Your task to perform on an android device: set default search engine in the chrome app Image 0: 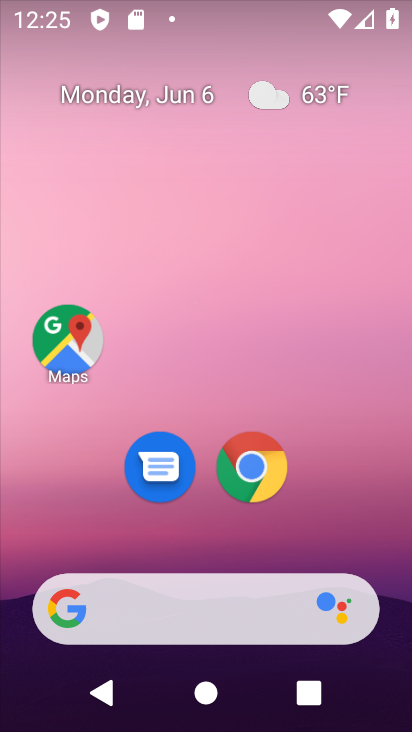
Step 0: drag from (396, 621) to (271, 91)
Your task to perform on an android device: set default search engine in the chrome app Image 1: 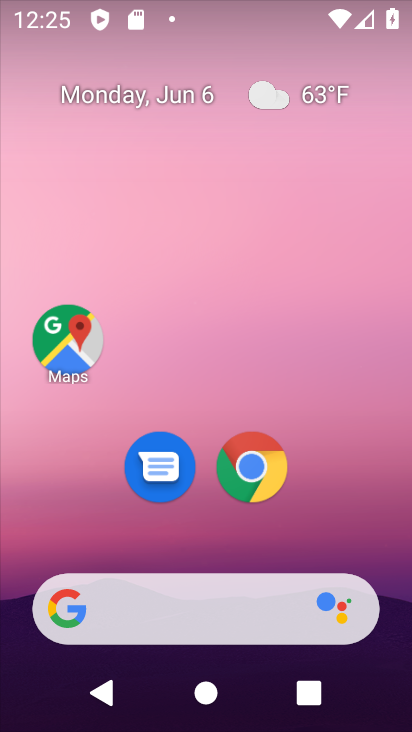
Step 1: click (267, 85)
Your task to perform on an android device: set default search engine in the chrome app Image 2: 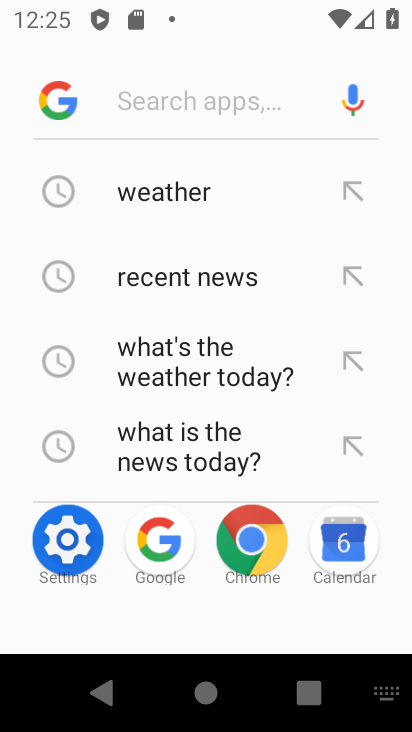
Step 2: click (267, 525)
Your task to perform on an android device: set default search engine in the chrome app Image 3: 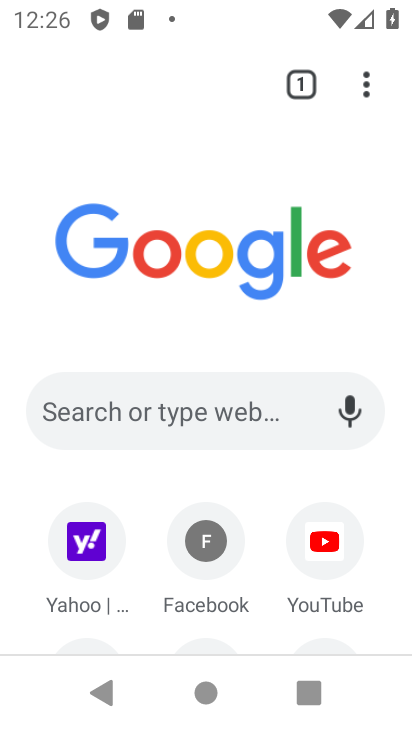
Step 3: click (369, 83)
Your task to perform on an android device: set default search engine in the chrome app Image 4: 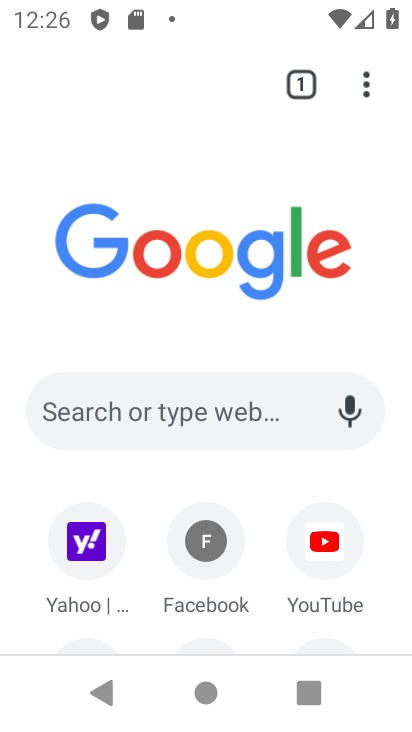
Step 4: click (366, 79)
Your task to perform on an android device: set default search engine in the chrome app Image 5: 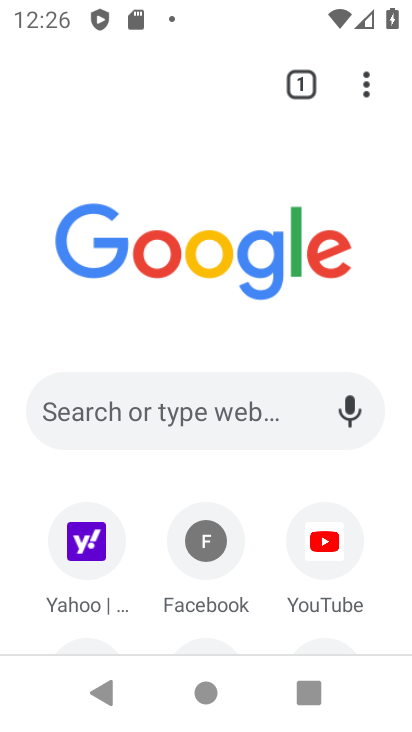
Step 5: click (366, 79)
Your task to perform on an android device: set default search engine in the chrome app Image 6: 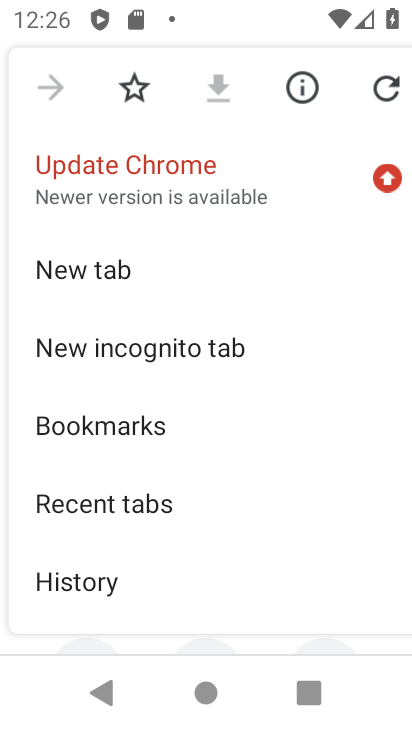
Step 6: drag from (140, 574) to (211, 159)
Your task to perform on an android device: set default search engine in the chrome app Image 7: 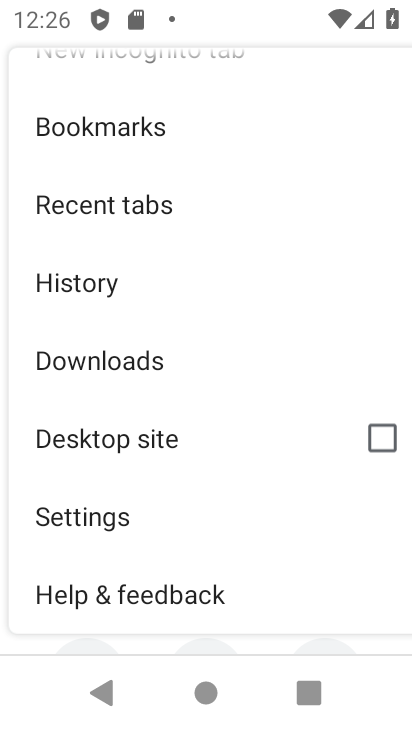
Step 7: click (122, 525)
Your task to perform on an android device: set default search engine in the chrome app Image 8: 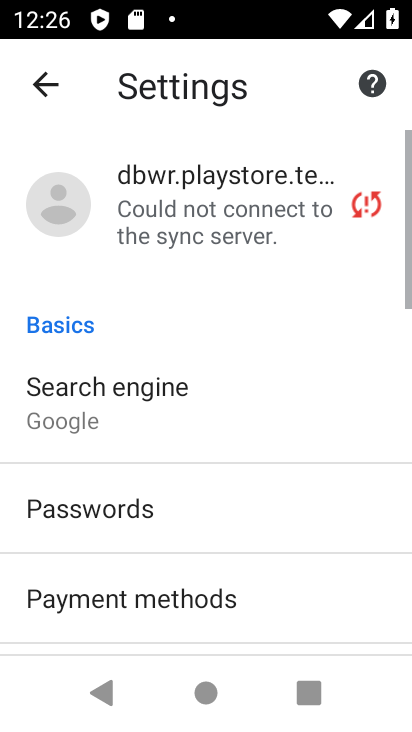
Step 8: click (145, 417)
Your task to perform on an android device: set default search engine in the chrome app Image 9: 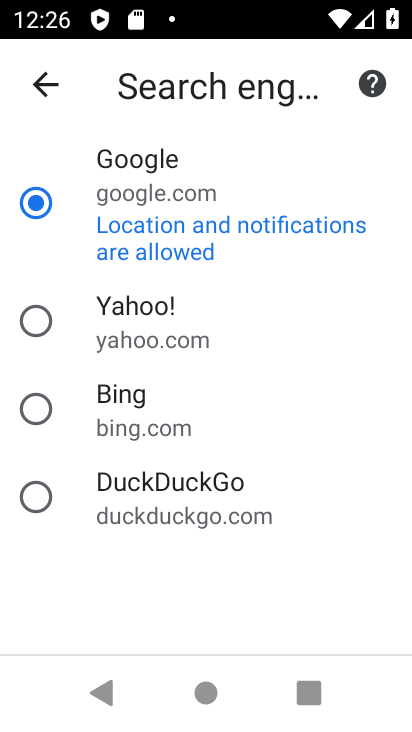
Step 9: click (121, 395)
Your task to perform on an android device: set default search engine in the chrome app Image 10: 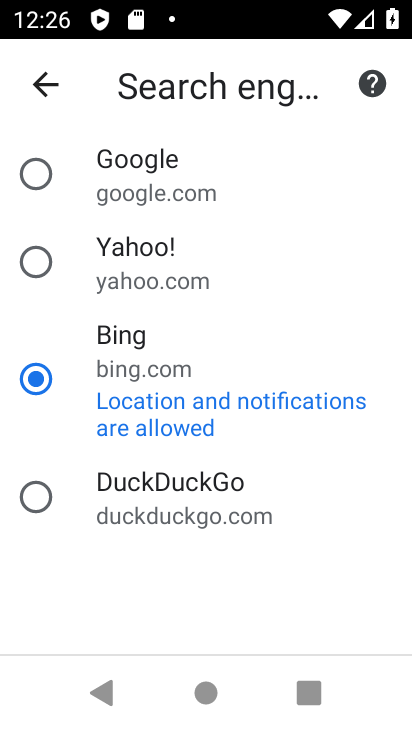
Step 10: task complete